Your task to perform on an android device: find photos in the google photos app Image 0: 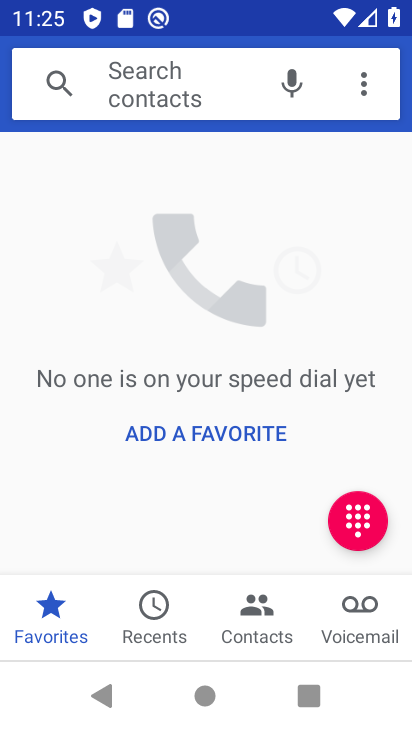
Step 0: press home button
Your task to perform on an android device: find photos in the google photos app Image 1: 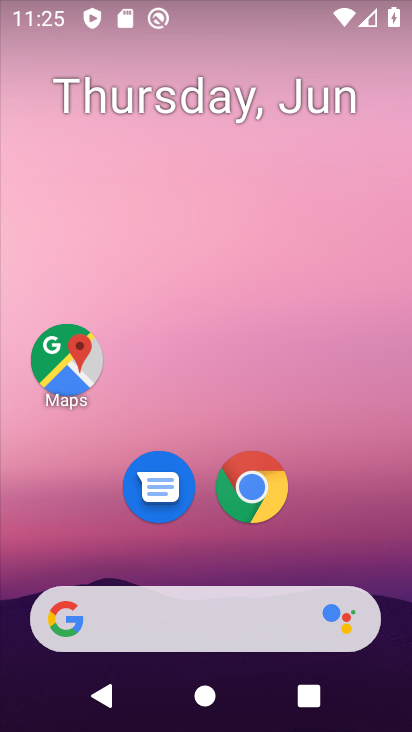
Step 1: drag from (152, 604) to (231, 103)
Your task to perform on an android device: find photos in the google photos app Image 2: 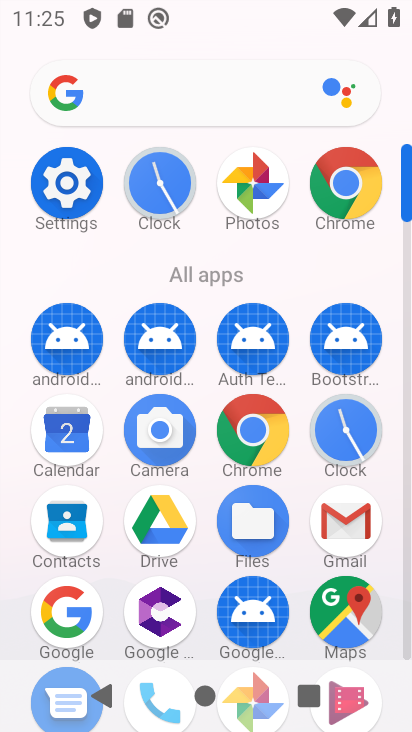
Step 2: drag from (242, 631) to (269, 415)
Your task to perform on an android device: find photos in the google photos app Image 3: 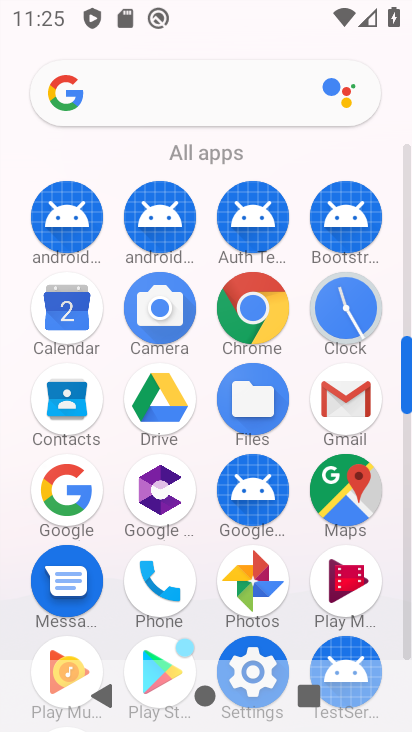
Step 3: click (265, 604)
Your task to perform on an android device: find photos in the google photos app Image 4: 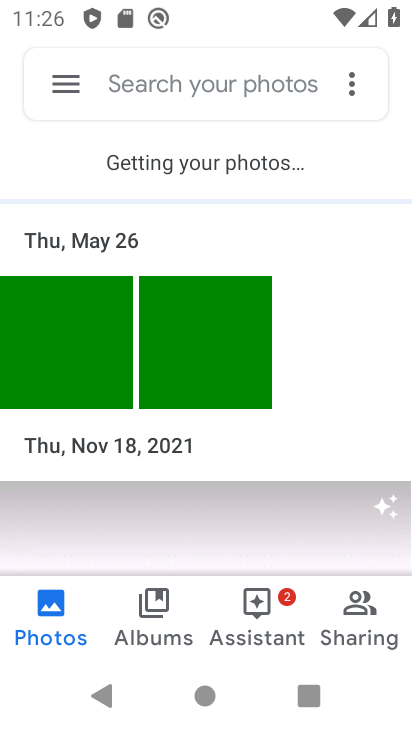
Step 4: task complete